Your task to perform on an android device: Open Google Chrome and click the shortcut for Amazon.com Image 0: 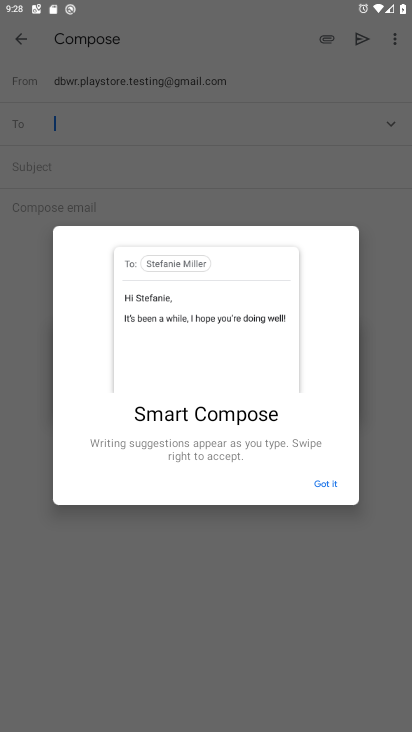
Step 0: press home button
Your task to perform on an android device: Open Google Chrome and click the shortcut for Amazon.com Image 1: 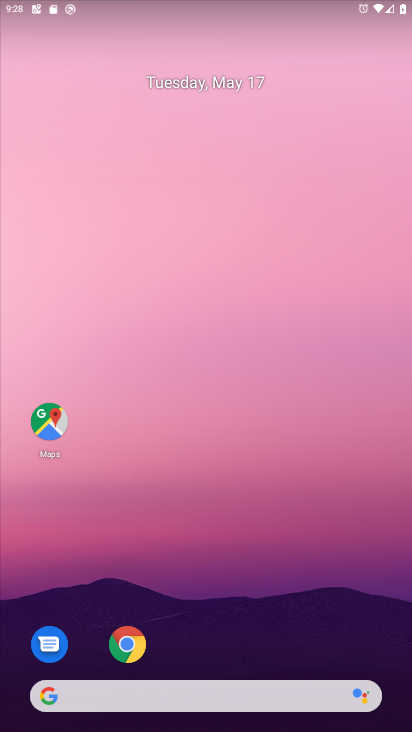
Step 1: click (132, 647)
Your task to perform on an android device: Open Google Chrome and click the shortcut for Amazon.com Image 2: 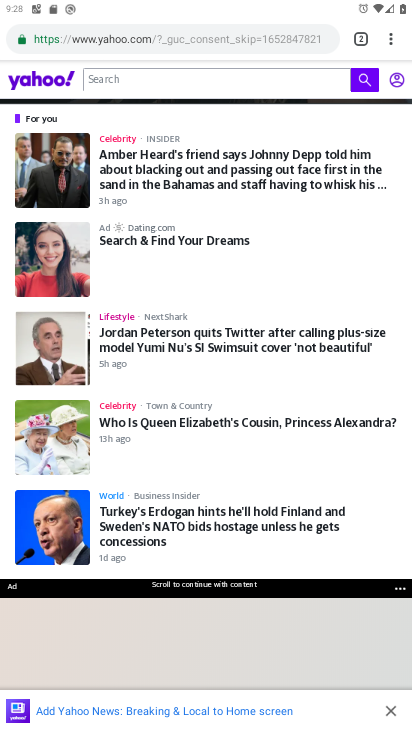
Step 2: click (359, 34)
Your task to perform on an android device: Open Google Chrome and click the shortcut for Amazon.com Image 3: 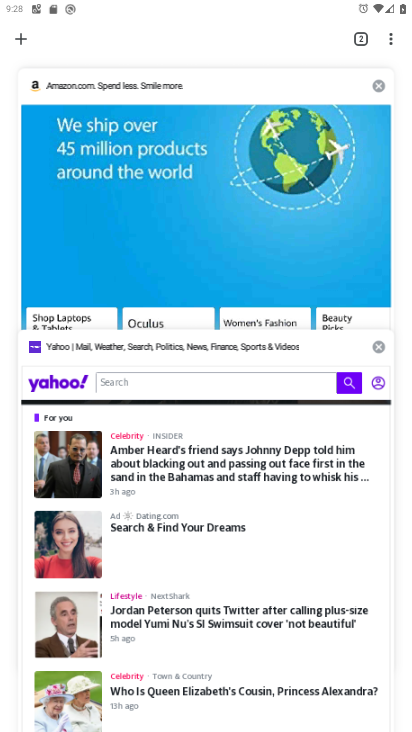
Step 3: click (376, 79)
Your task to perform on an android device: Open Google Chrome and click the shortcut for Amazon.com Image 4: 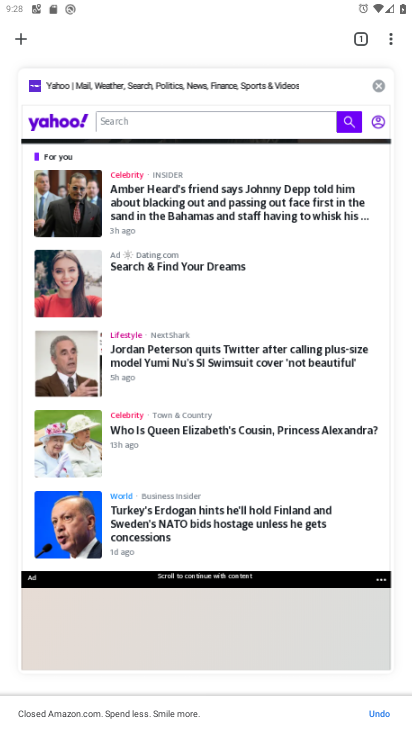
Step 4: click (376, 104)
Your task to perform on an android device: Open Google Chrome and click the shortcut for Amazon.com Image 5: 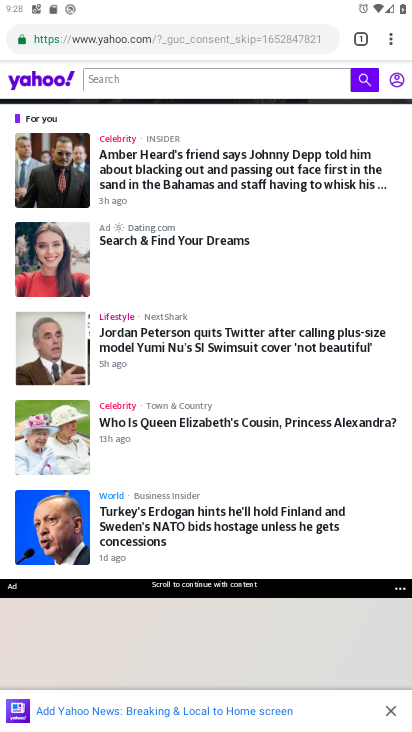
Step 5: click (357, 36)
Your task to perform on an android device: Open Google Chrome and click the shortcut for Amazon.com Image 6: 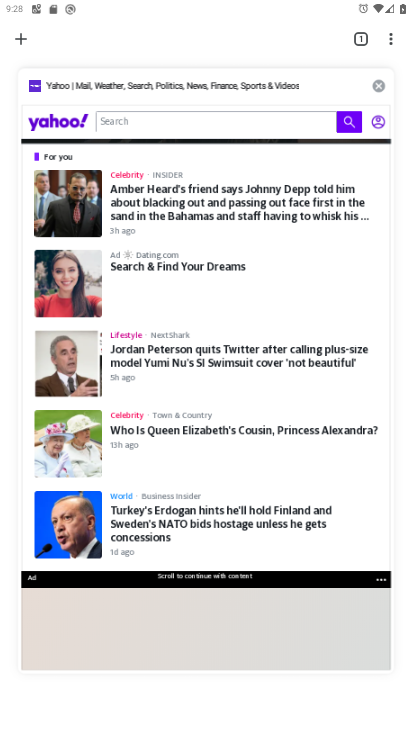
Step 6: click (379, 81)
Your task to perform on an android device: Open Google Chrome and click the shortcut for Amazon.com Image 7: 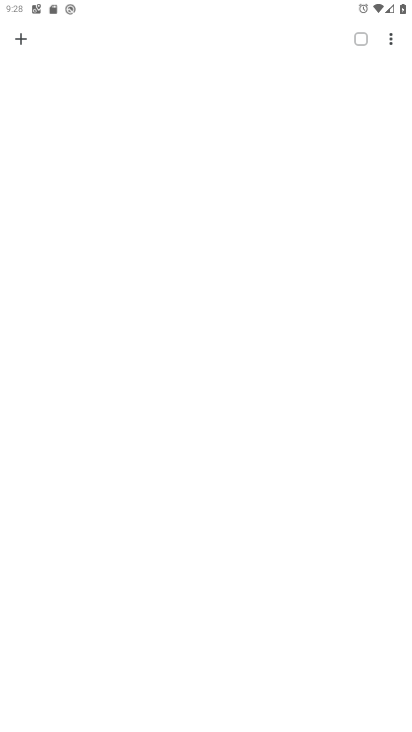
Step 7: click (22, 35)
Your task to perform on an android device: Open Google Chrome and click the shortcut for Amazon.com Image 8: 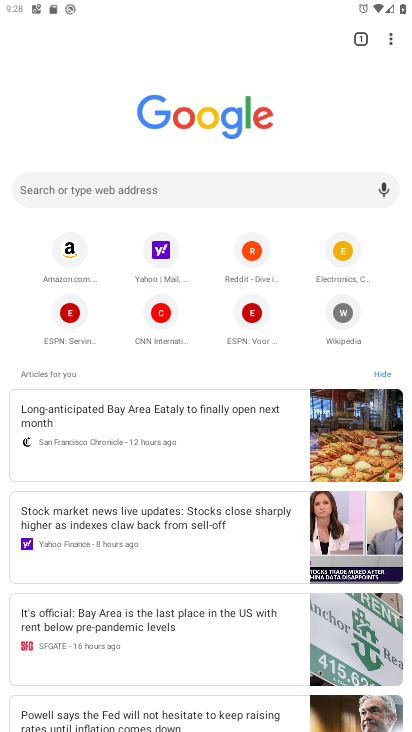
Step 8: click (70, 247)
Your task to perform on an android device: Open Google Chrome and click the shortcut for Amazon.com Image 9: 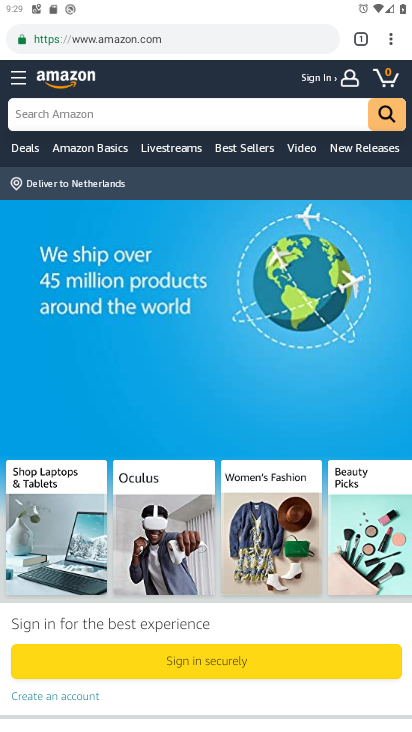
Step 9: task complete